Your task to perform on an android device: Search for Mexican restaurants on Maps Image 0: 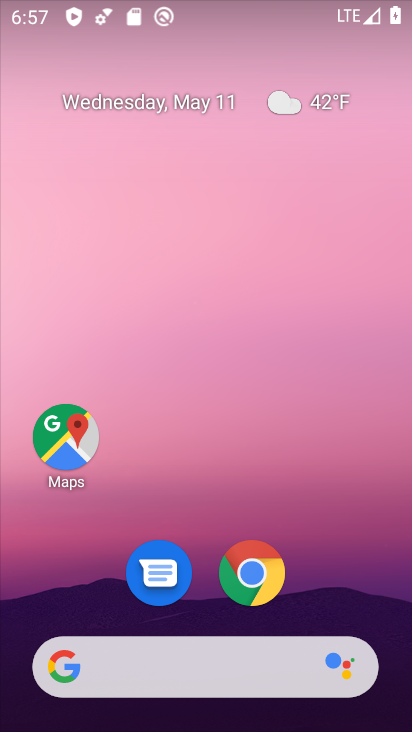
Step 0: click (69, 449)
Your task to perform on an android device: Search for Mexican restaurants on Maps Image 1: 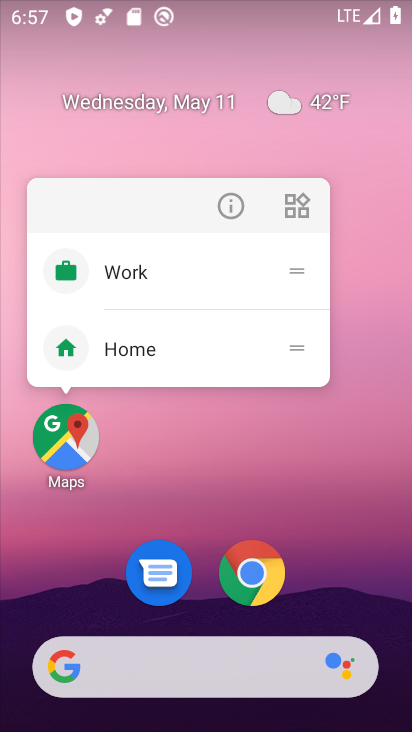
Step 1: click (69, 449)
Your task to perform on an android device: Search for Mexican restaurants on Maps Image 2: 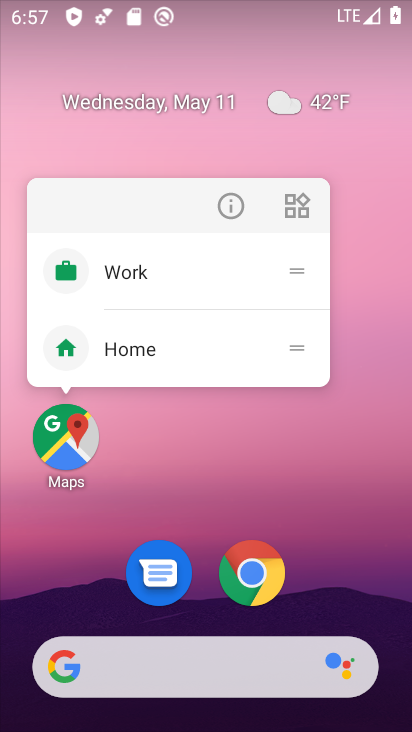
Step 2: click (64, 426)
Your task to perform on an android device: Search for Mexican restaurants on Maps Image 3: 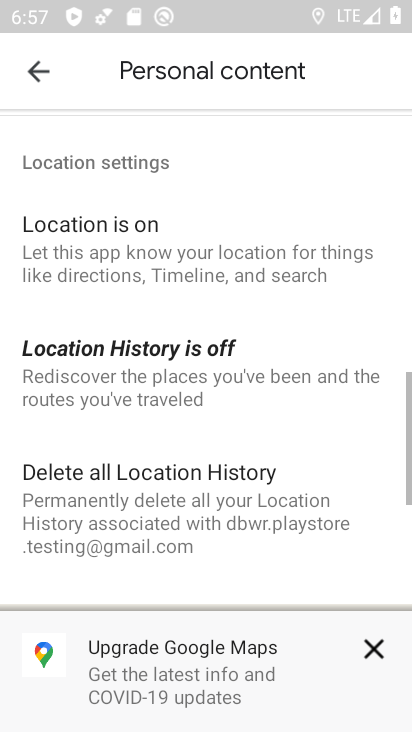
Step 3: click (25, 76)
Your task to perform on an android device: Search for Mexican restaurants on Maps Image 4: 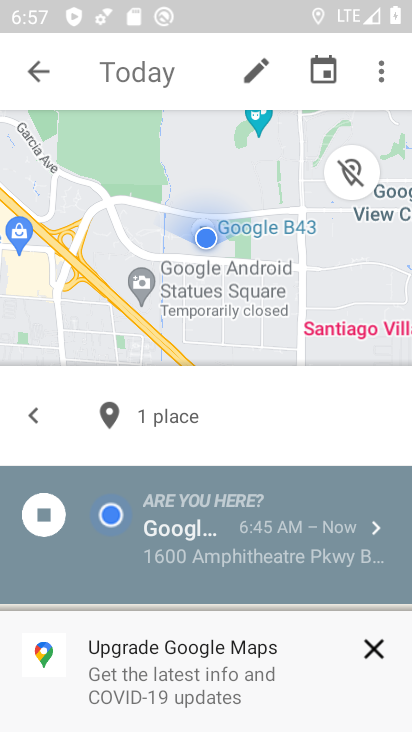
Step 4: click (34, 74)
Your task to perform on an android device: Search for Mexican restaurants on Maps Image 5: 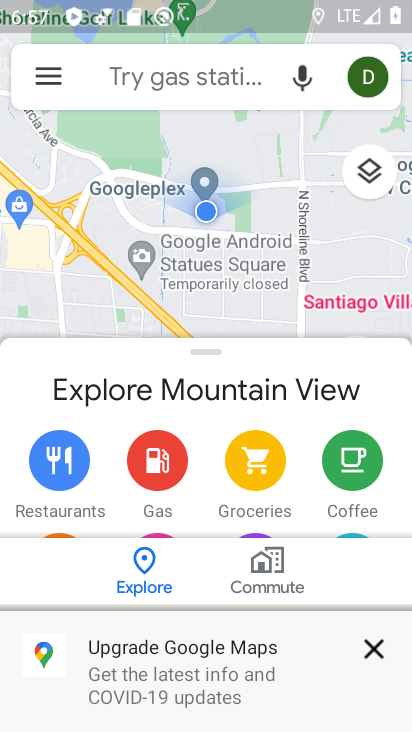
Step 5: click (201, 79)
Your task to perform on an android device: Search for Mexican restaurants on Maps Image 6: 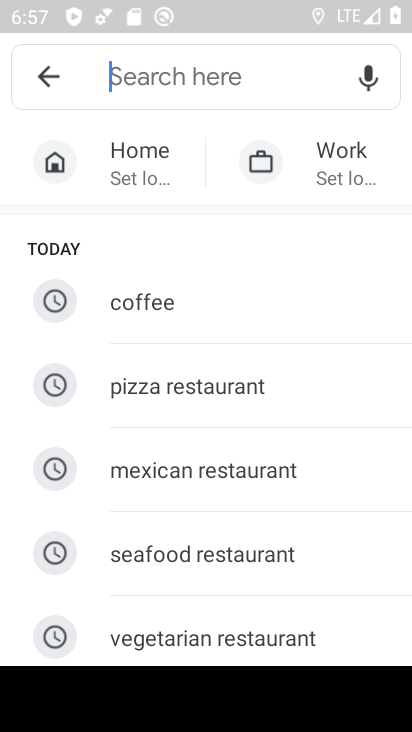
Step 6: click (226, 467)
Your task to perform on an android device: Search for Mexican restaurants on Maps Image 7: 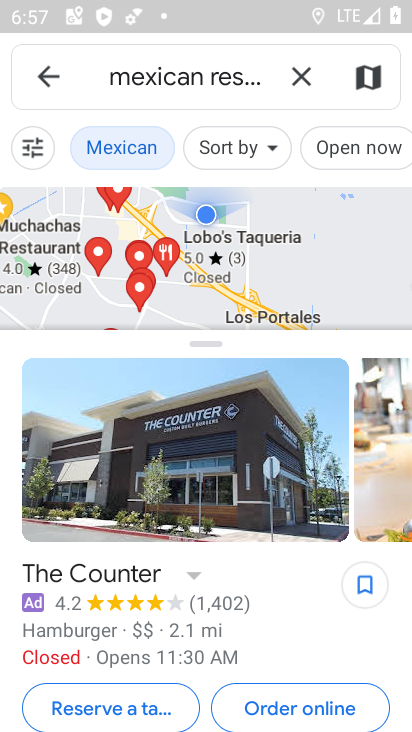
Step 7: task complete